Your task to perform on an android device: change the clock display to analog Image 0: 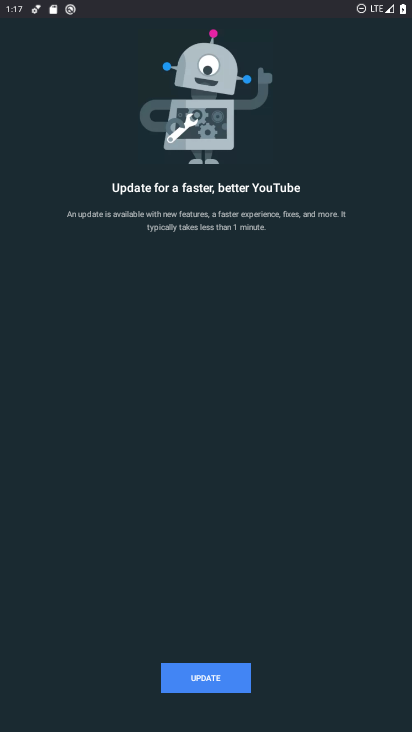
Step 0: press home button
Your task to perform on an android device: change the clock display to analog Image 1: 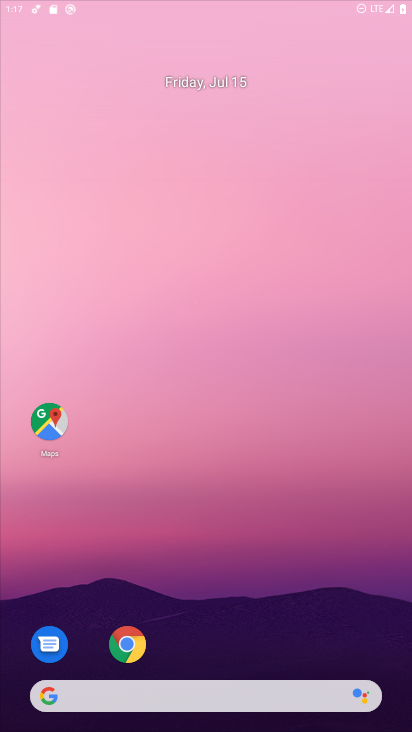
Step 1: drag from (20, 590) to (230, 141)
Your task to perform on an android device: change the clock display to analog Image 2: 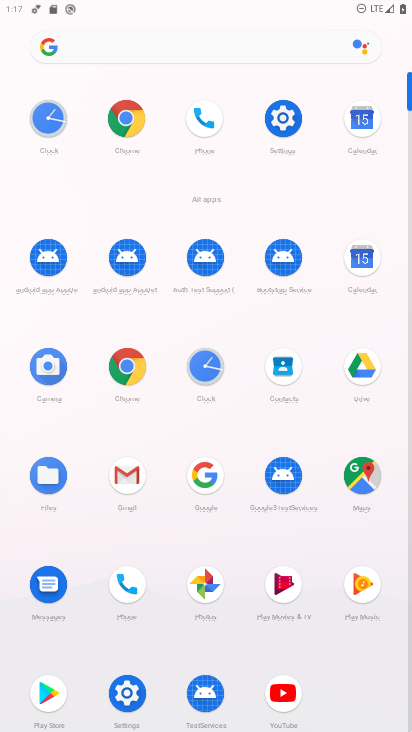
Step 2: click (277, 116)
Your task to perform on an android device: change the clock display to analog Image 3: 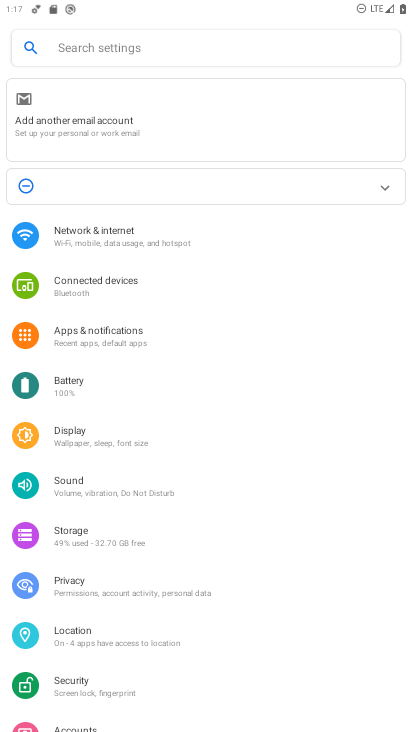
Step 3: press home button
Your task to perform on an android device: change the clock display to analog Image 4: 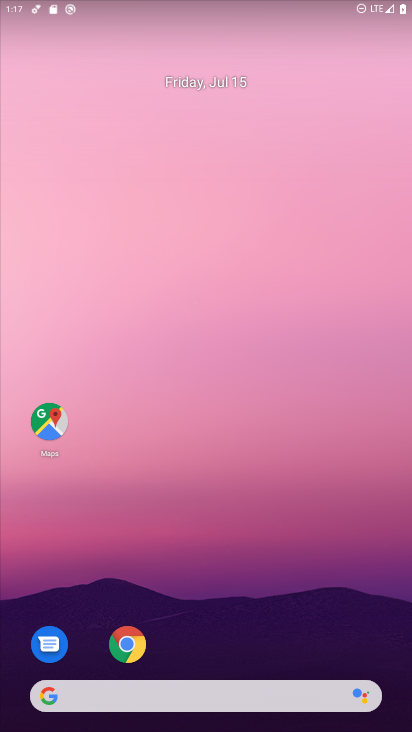
Step 4: drag from (120, 533) to (340, 125)
Your task to perform on an android device: change the clock display to analog Image 5: 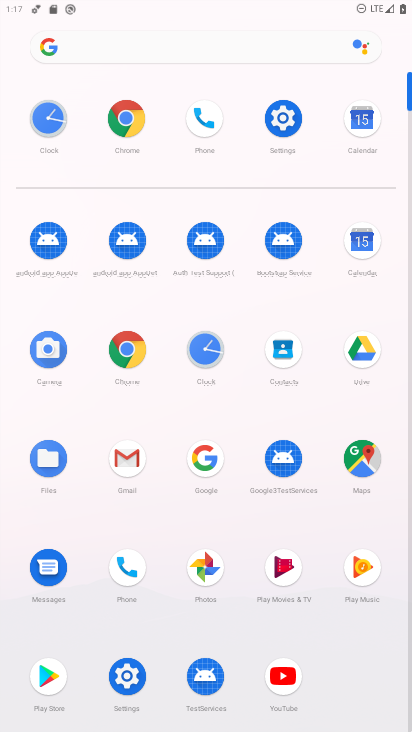
Step 5: click (188, 344)
Your task to perform on an android device: change the clock display to analog Image 6: 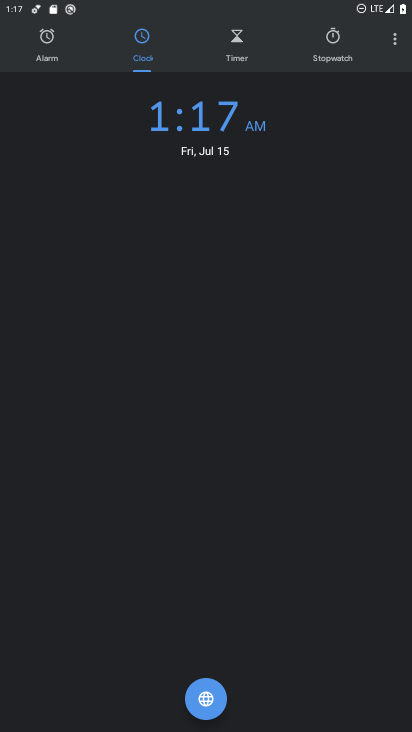
Step 6: click (394, 44)
Your task to perform on an android device: change the clock display to analog Image 7: 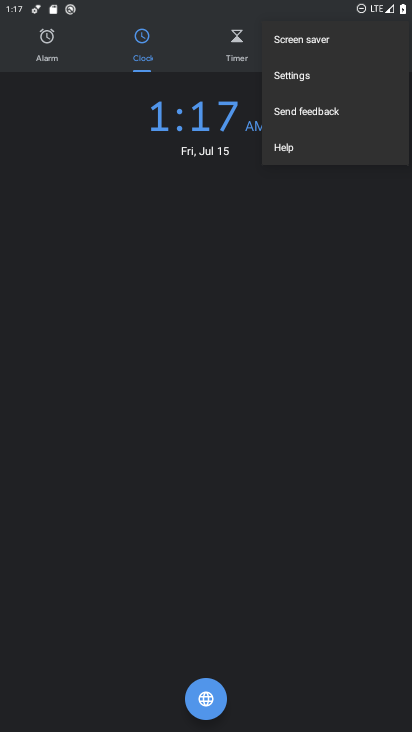
Step 7: click (335, 65)
Your task to perform on an android device: change the clock display to analog Image 8: 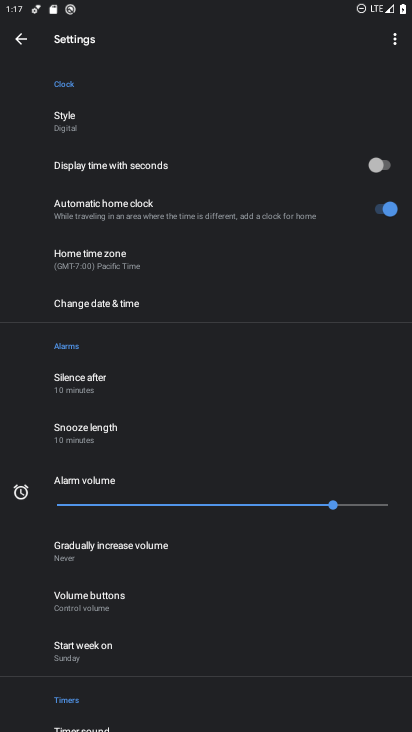
Step 8: click (71, 117)
Your task to perform on an android device: change the clock display to analog Image 9: 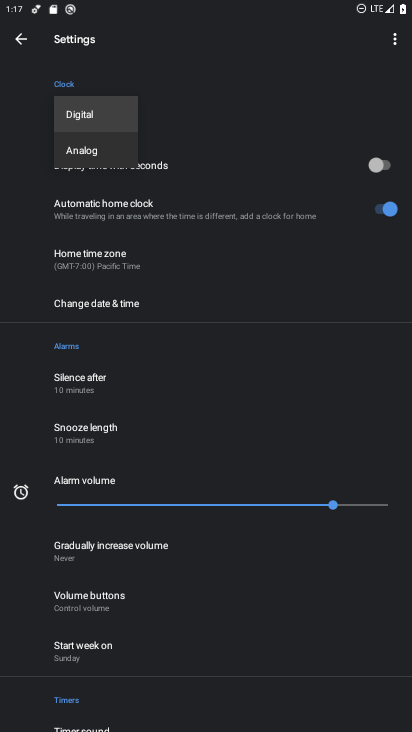
Step 9: click (73, 161)
Your task to perform on an android device: change the clock display to analog Image 10: 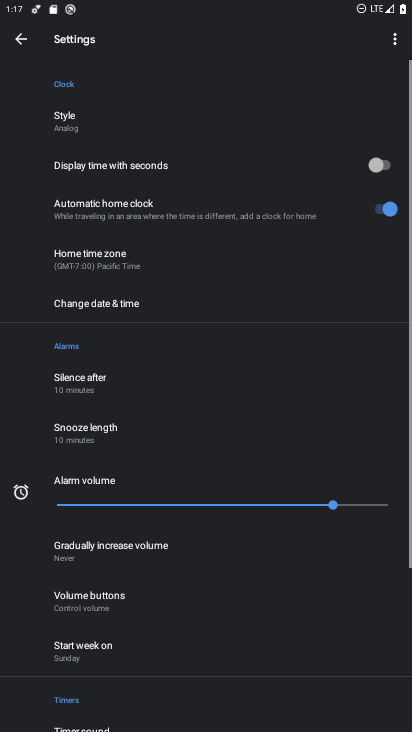
Step 10: task complete